Your task to perform on an android device: Go to sound settings Image 0: 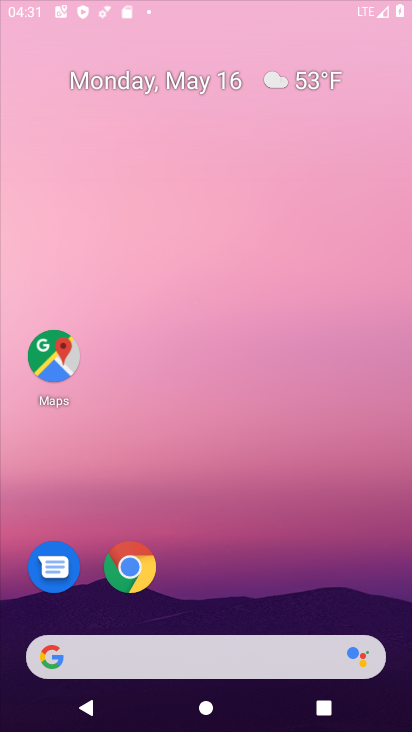
Step 0: drag from (311, 222) to (316, 112)
Your task to perform on an android device: Go to sound settings Image 1: 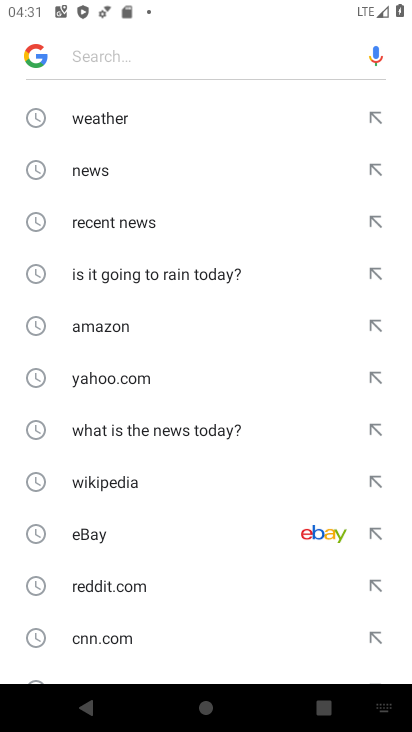
Step 1: press home button
Your task to perform on an android device: Go to sound settings Image 2: 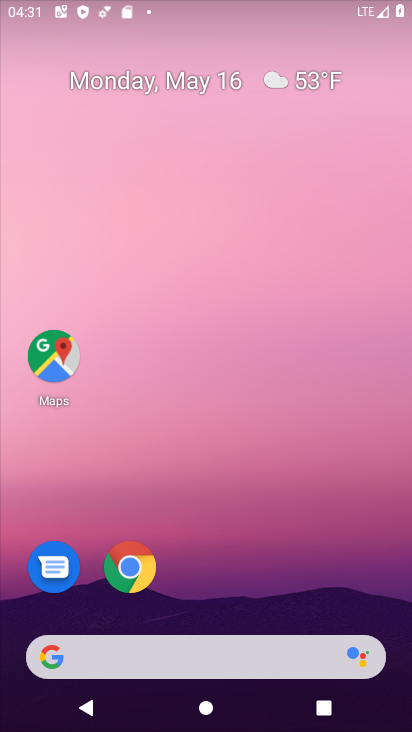
Step 2: drag from (230, 621) to (228, 87)
Your task to perform on an android device: Go to sound settings Image 3: 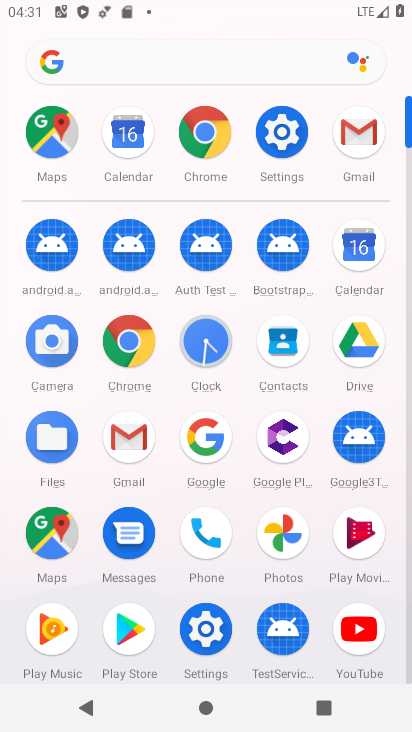
Step 3: click (280, 141)
Your task to perform on an android device: Go to sound settings Image 4: 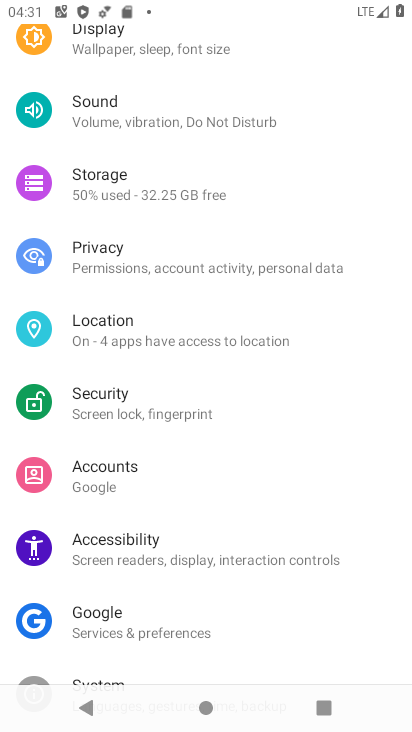
Step 4: click (157, 122)
Your task to perform on an android device: Go to sound settings Image 5: 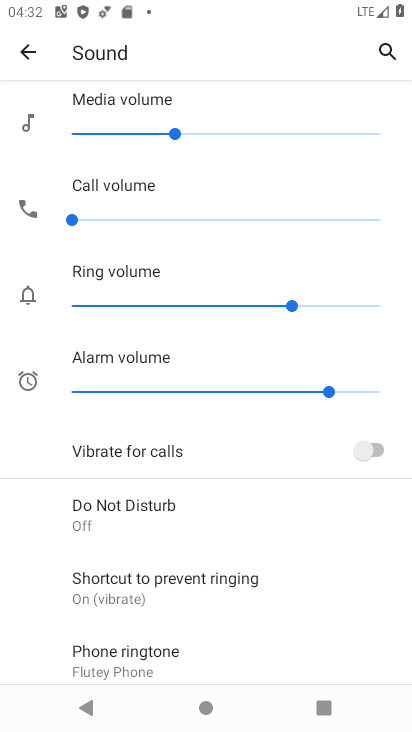
Step 5: task complete